Your task to perform on an android device: turn on data saver in the chrome app Image 0: 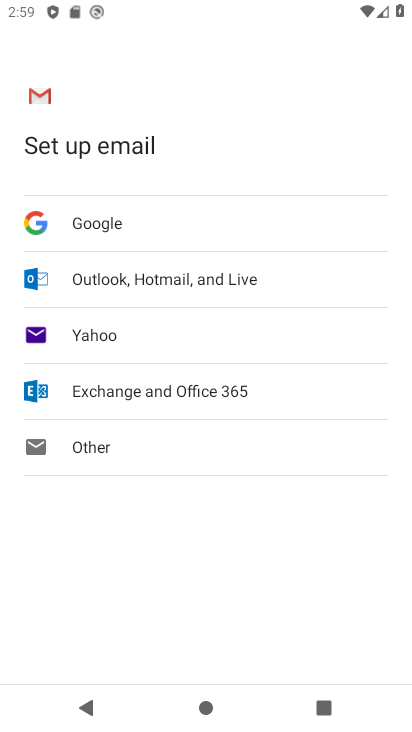
Step 0: press home button
Your task to perform on an android device: turn on data saver in the chrome app Image 1: 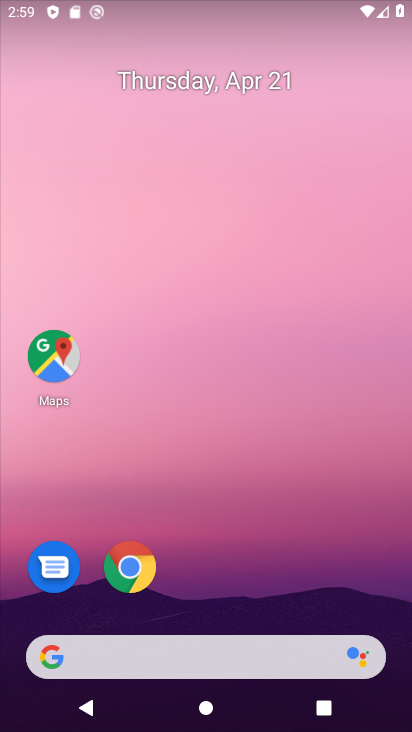
Step 1: click (117, 568)
Your task to perform on an android device: turn on data saver in the chrome app Image 2: 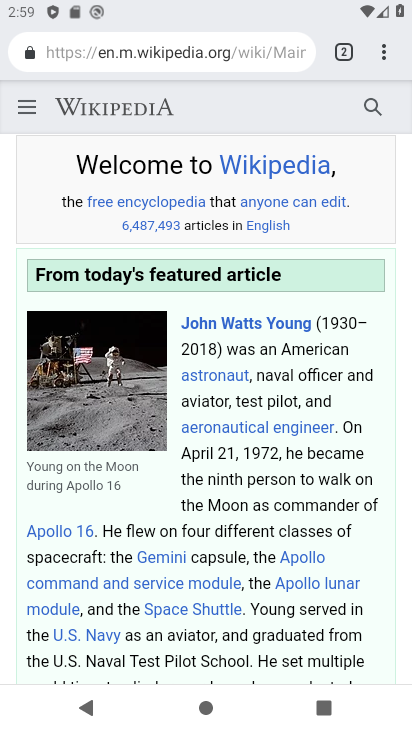
Step 2: click (373, 62)
Your task to perform on an android device: turn on data saver in the chrome app Image 3: 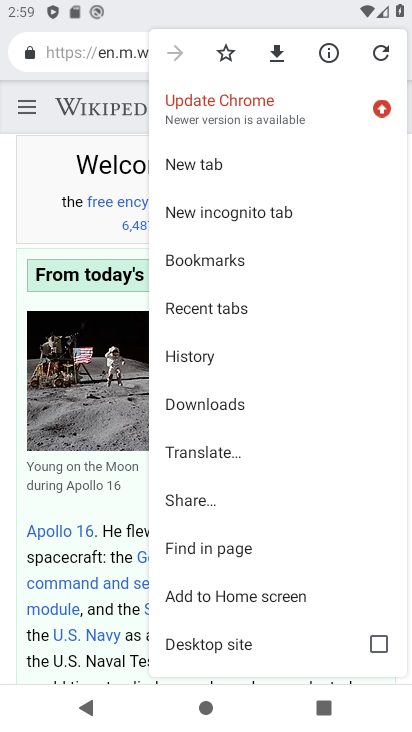
Step 3: drag from (226, 627) to (217, 258)
Your task to perform on an android device: turn on data saver in the chrome app Image 4: 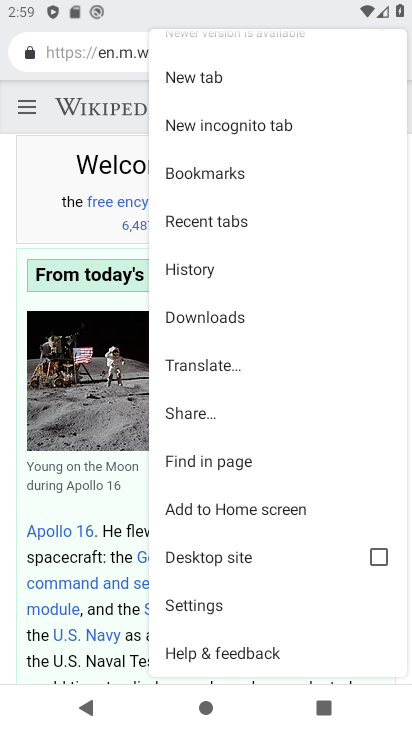
Step 4: click (237, 607)
Your task to perform on an android device: turn on data saver in the chrome app Image 5: 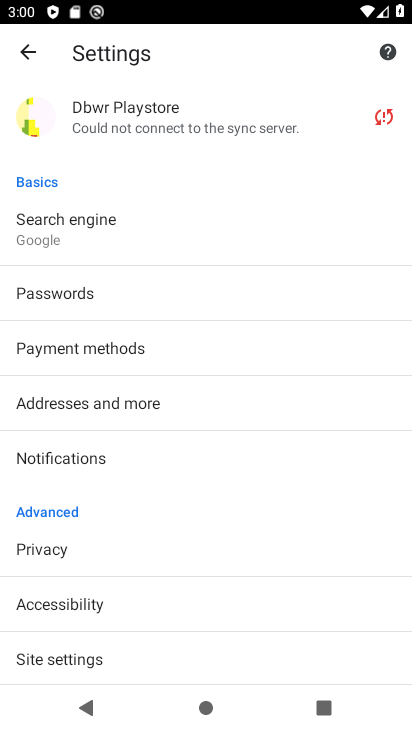
Step 5: drag from (129, 652) to (179, 210)
Your task to perform on an android device: turn on data saver in the chrome app Image 6: 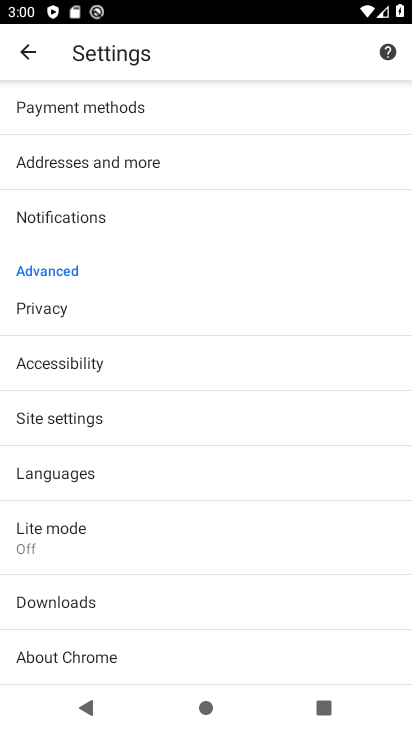
Step 6: click (126, 548)
Your task to perform on an android device: turn on data saver in the chrome app Image 7: 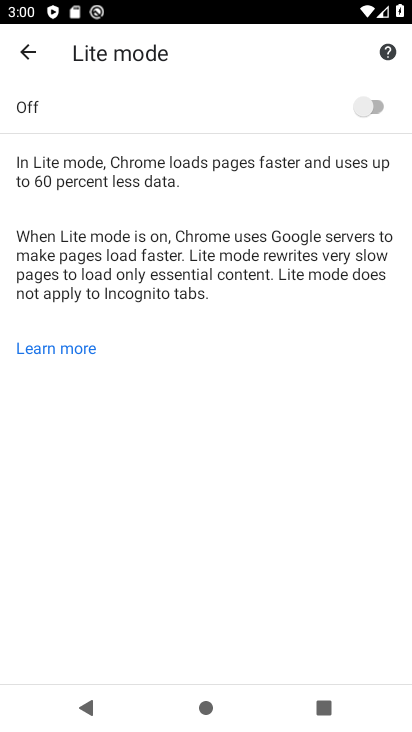
Step 7: click (375, 113)
Your task to perform on an android device: turn on data saver in the chrome app Image 8: 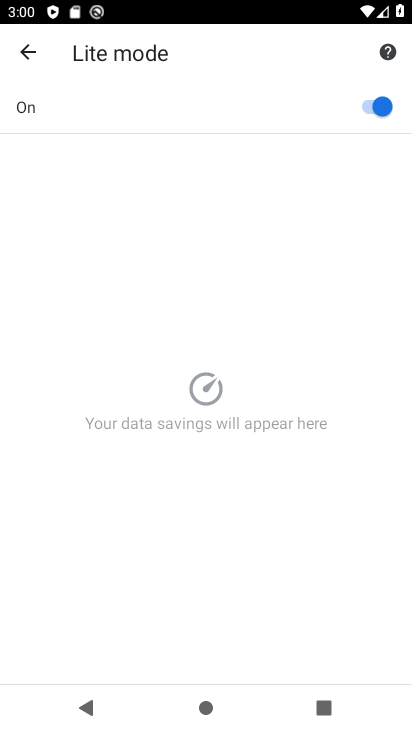
Step 8: task complete